Your task to perform on an android device: Show the shopping cart on walmart.com. Add "rayovac triple a" to the cart on walmart.com Image 0: 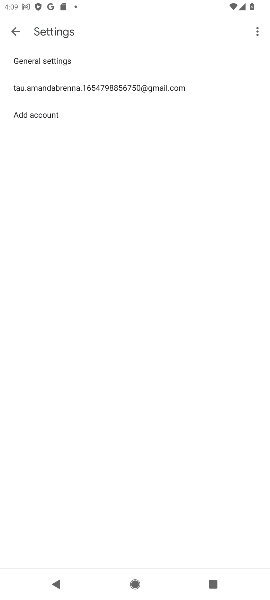
Step 0: press home button
Your task to perform on an android device: Show the shopping cart on walmart.com. Add "rayovac triple a" to the cart on walmart.com Image 1: 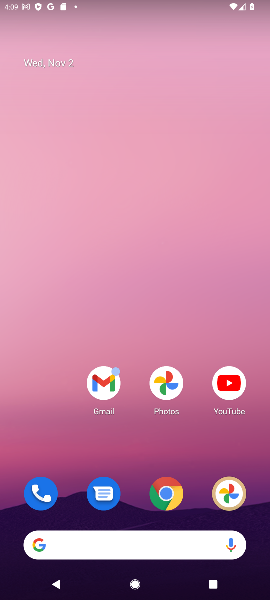
Step 1: drag from (111, 512) to (116, 247)
Your task to perform on an android device: Show the shopping cart on walmart.com. Add "rayovac triple a" to the cart on walmart.com Image 2: 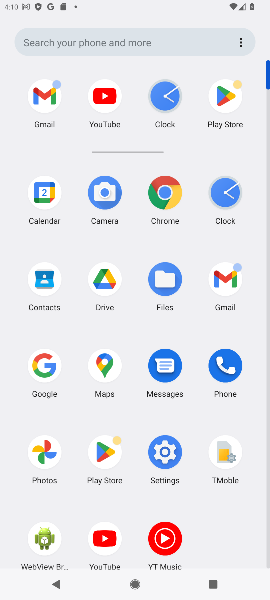
Step 2: click (40, 363)
Your task to perform on an android device: Show the shopping cart on walmart.com. Add "rayovac triple a" to the cart on walmart.com Image 3: 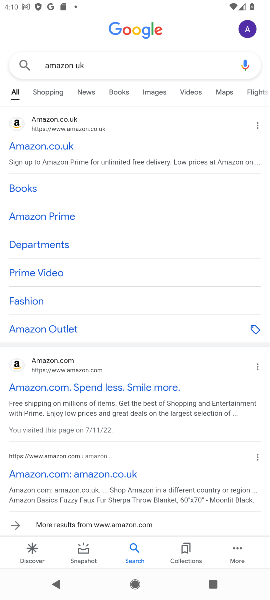
Step 3: click (109, 61)
Your task to perform on an android device: Show the shopping cart on walmart.com. Add "rayovac triple a" to the cart on walmart.com Image 4: 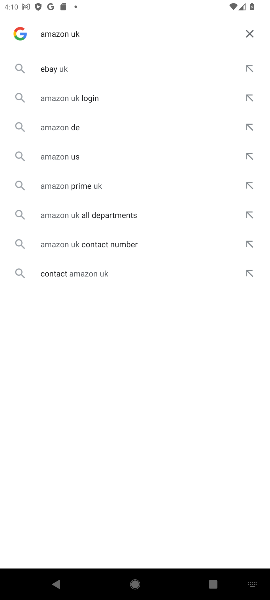
Step 4: click (253, 36)
Your task to perform on an android device: Show the shopping cart on walmart.com. Add "rayovac triple a" to the cart on walmart.com Image 5: 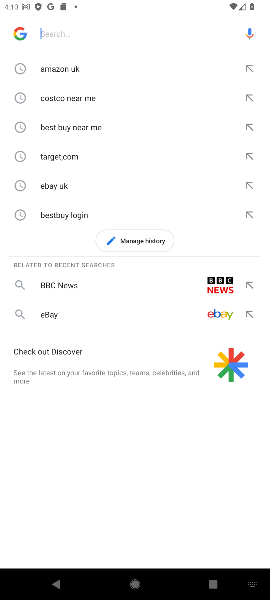
Step 5: click (76, 29)
Your task to perform on an android device: Show the shopping cart on walmart.com. Add "rayovac triple a" to the cart on walmart.com Image 6: 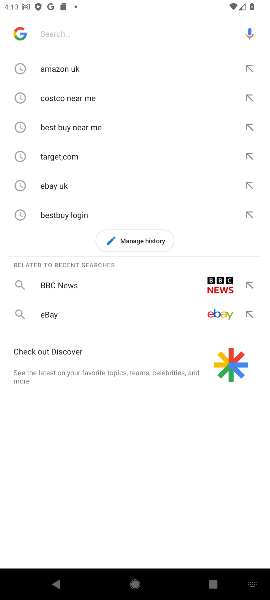
Step 6: type "walmart "
Your task to perform on an android device: Show the shopping cart on walmart.com. Add "rayovac triple a" to the cart on walmart.com Image 7: 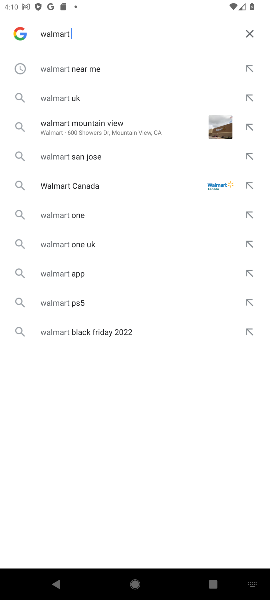
Step 7: click (48, 66)
Your task to perform on an android device: Show the shopping cart on walmart.com. Add "rayovac triple a" to the cart on walmart.com Image 8: 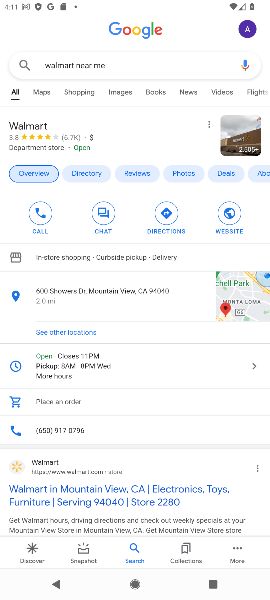
Step 8: click (22, 464)
Your task to perform on an android device: Show the shopping cart on walmart.com. Add "rayovac triple a" to the cart on walmart.com Image 9: 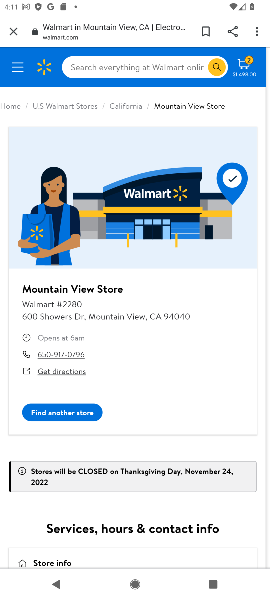
Step 9: click (122, 62)
Your task to perform on an android device: Show the shopping cart on walmart.com. Add "rayovac triple a" to the cart on walmart.com Image 10: 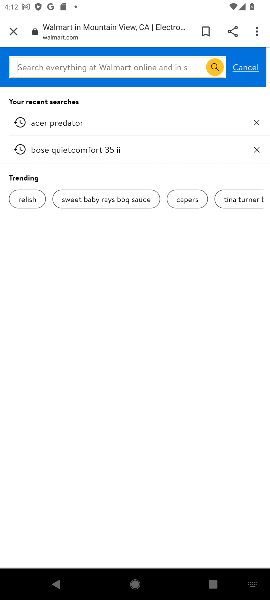
Step 10: click (72, 64)
Your task to perform on an android device: Show the shopping cart on walmart.com. Add "rayovac triple a" to the cart on walmart.com Image 11: 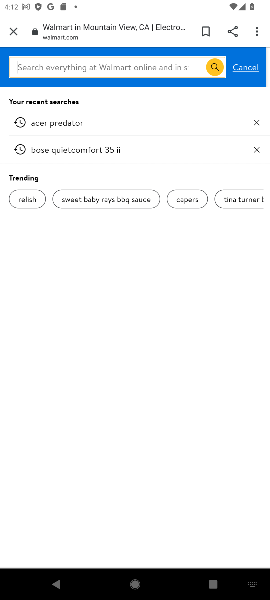
Step 11: type ""rayovac triple  "
Your task to perform on an android device: Show the shopping cart on walmart.com. Add "rayovac triple a" to the cart on walmart.com Image 12: 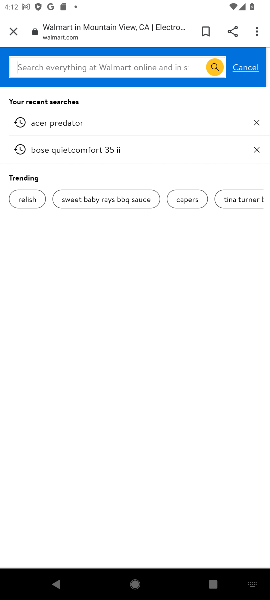
Step 12: click (75, 63)
Your task to perform on an android device: Show the shopping cart on walmart.com. Add "rayovac triple a" to the cart on walmart.com Image 13: 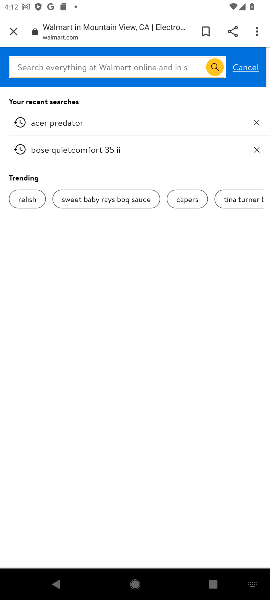
Step 13: type ""rayovac triple  "
Your task to perform on an android device: Show the shopping cart on walmart.com. Add "rayovac triple a" to the cart on walmart.com Image 14: 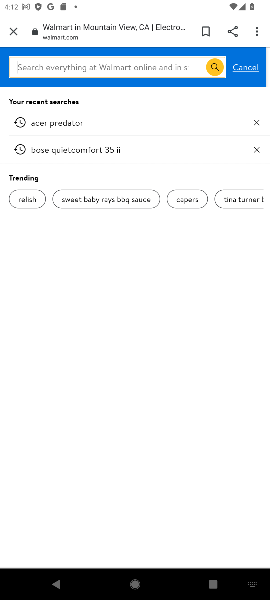
Step 14: click (160, 64)
Your task to perform on an android device: Show the shopping cart on walmart.com. Add "rayovac triple a" to the cart on walmart.com Image 15: 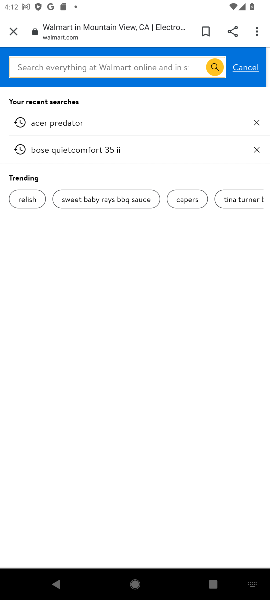
Step 15: click (164, 64)
Your task to perform on an android device: Show the shopping cart on walmart.com. Add "rayovac triple a" to the cart on walmart.com Image 16: 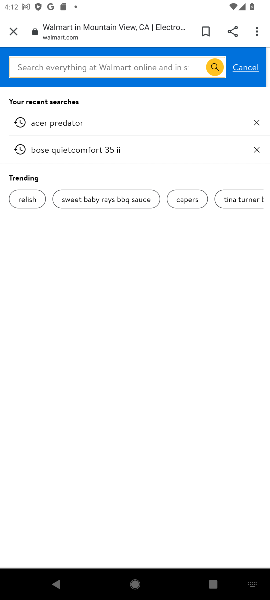
Step 16: click (164, 64)
Your task to perform on an android device: Show the shopping cart on walmart.com. Add "rayovac triple a" to the cart on walmart.com Image 17: 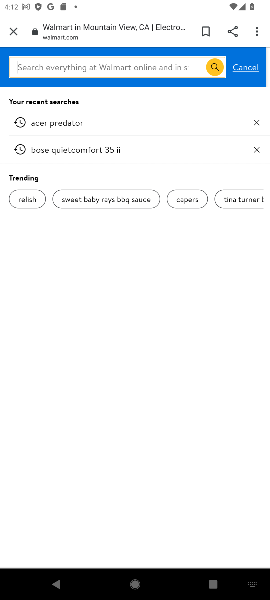
Step 17: click (243, 68)
Your task to perform on an android device: Show the shopping cart on walmart.com. Add "rayovac triple a" to the cart on walmart.com Image 18: 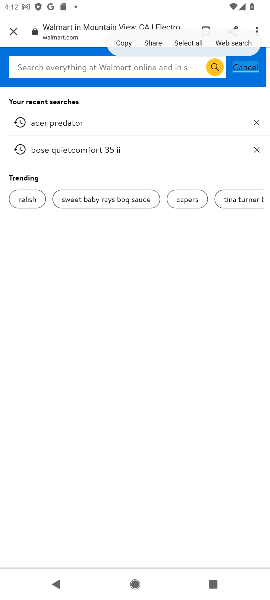
Step 18: click (243, 69)
Your task to perform on an android device: Show the shopping cart on walmart.com. Add "rayovac triple a" to the cart on walmart.com Image 19: 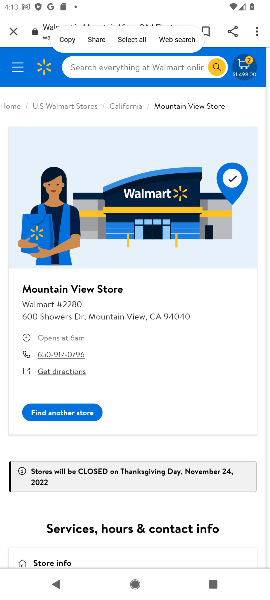
Step 19: click (124, 63)
Your task to perform on an android device: Show the shopping cart on walmart.com. Add "rayovac triple a" to the cart on walmart.com Image 20: 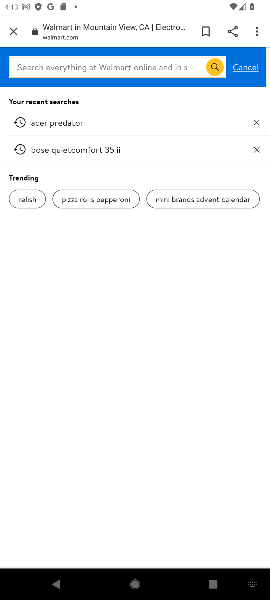
Step 20: type "rayovac "
Your task to perform on an android device: Show the shopping cart on walmart.com. Add "rayovac triple a" to the cart on walmart.com Image 21: 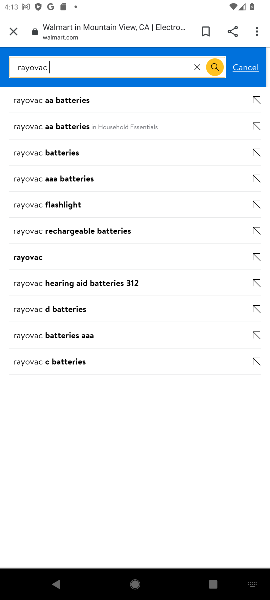
Step 21: click (49, 104)
Your task to perform on an android device: Show the shopping cart on walmart.com. Add "rayovac triple a" to the cart on walmart.com Image 22: 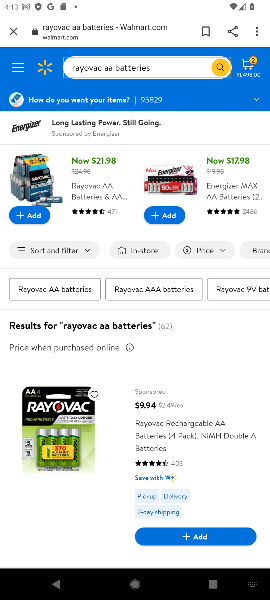
Step 22: click (199, 533)
Your task to perform on an android device: Show the shopping cart on walmart.com. Add "rayovac triple a" to the cart on walmart.com Image 23: 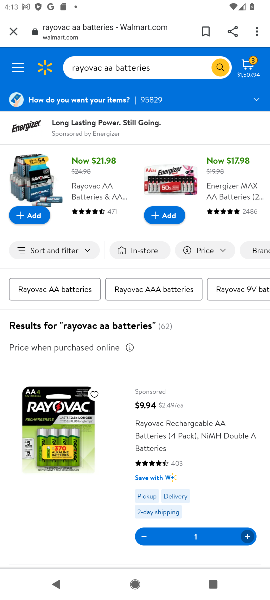
Step 23: task complete